Your task to perform on an android device: stop showing notifications on the lock screen Image 0: 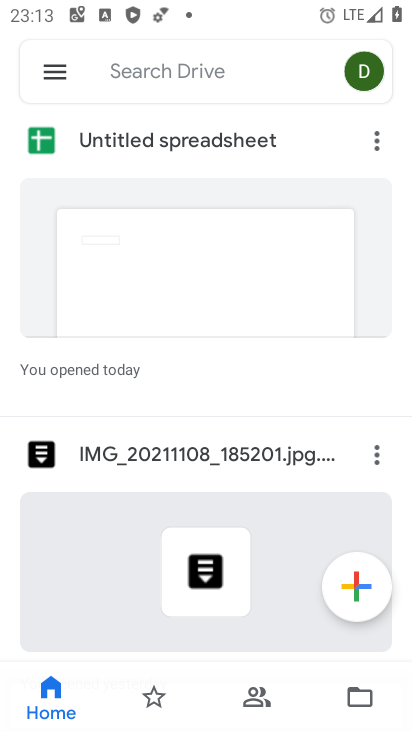
Step 0: drag from (0, 575) to (56, 727)
Your task to perform on an android device: stop showing notifications on the lock screen Image 1: 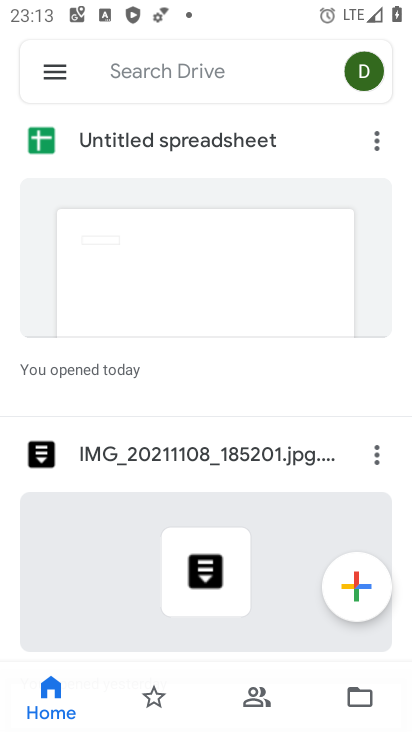
Step 1: press home button
Your task to perform on an android device: stop showing notifications on the lock screen Image 2: 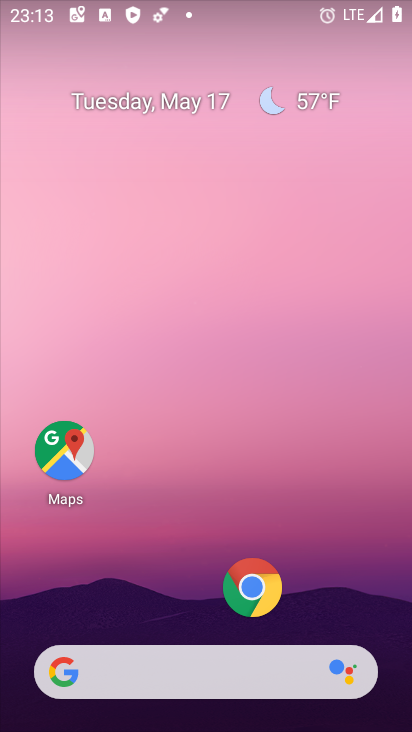
Step 2: drag from (13, 568) to (219, 158)
Your task to perform on an android device: stop showing notifications on the lock screen Image 3: 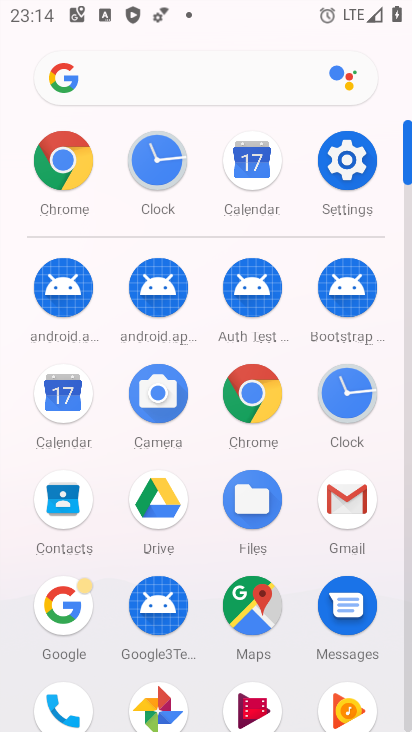
Step 3: click (364, 169)
Your task to perform on an android device: stop showing notifications on the lock screen Image 4: 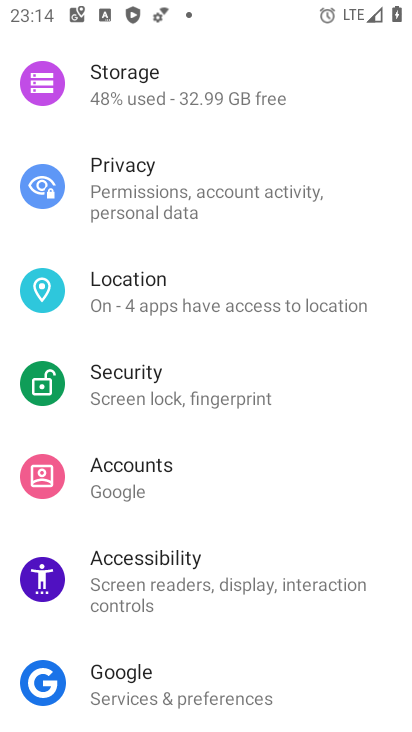
Step 4: drag from (171, 226) to (175, 324)
Your task to perform on an android device: stop showing notifications on the lock screen Image 5: 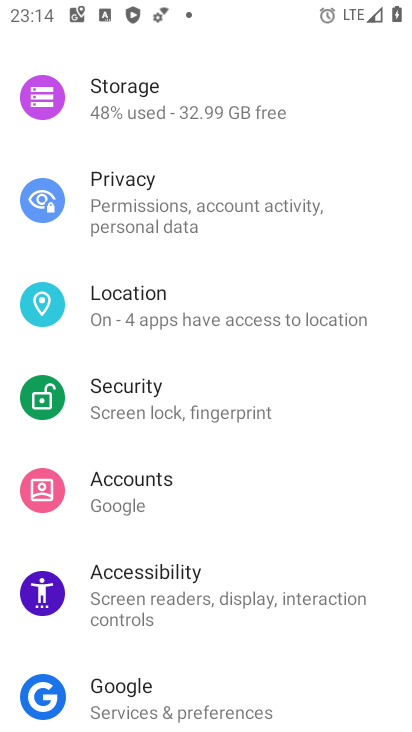
Step 5: drag from (273, 133) to (307, 550)
Your task to perform on an android device: stop showing notifications on the lock screen Image 6: 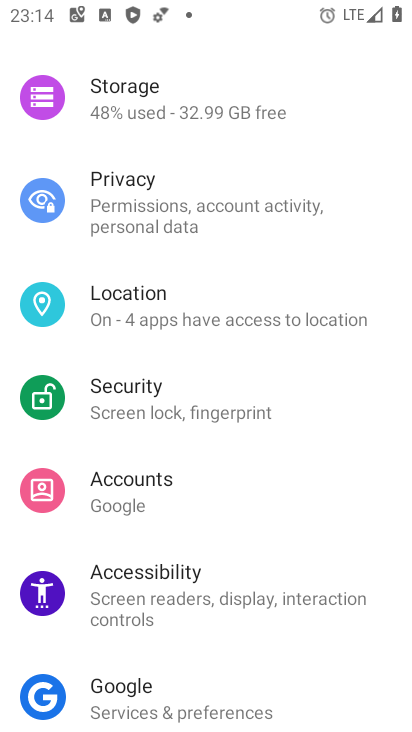
Step 6: drag from (141, 86) to (199, 597)
Your task to perform on an android device: stop showing notifications on the lock screen Image 7: 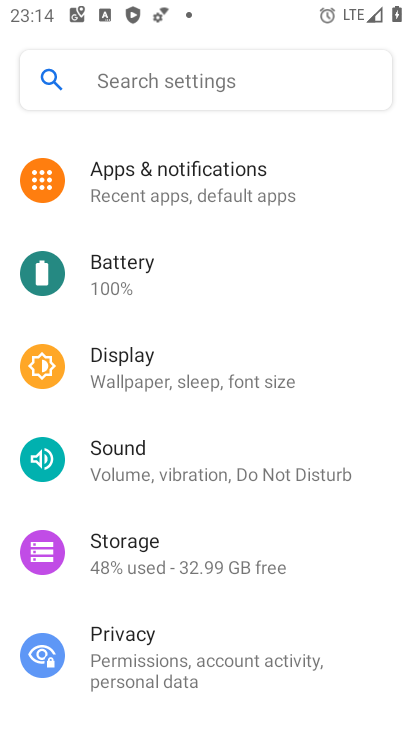
Step 7: click (193, 178)
Your task to perform on an android device: stop showing notifications on the lock screen Image 8: 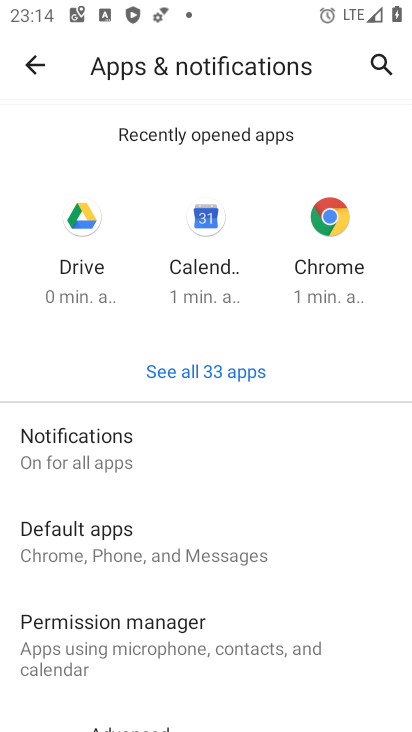
Step 8: click (96, 465)
Your task to perform on an android device: stop showing notifications on the lock screen Image 9: 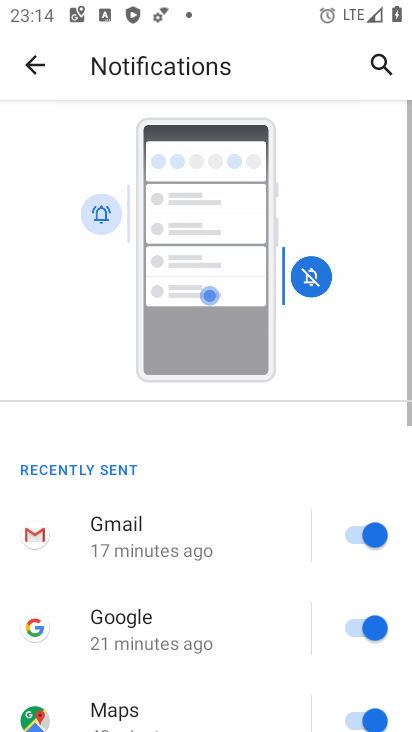
Step 9: drag from (128, 696) to (165, 186)
Your task to perform on an android device: stop showing notifications on the lock screen Image 10: 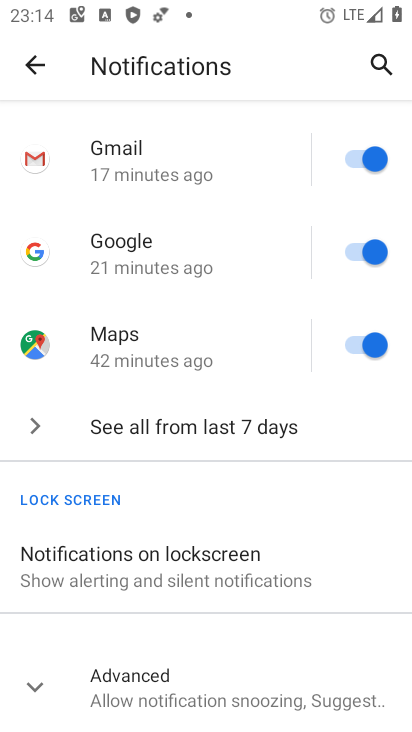
Step 10: click (182, 573)
Your task to perform on an android device: stop showing notifications on the lock screen Image 11: 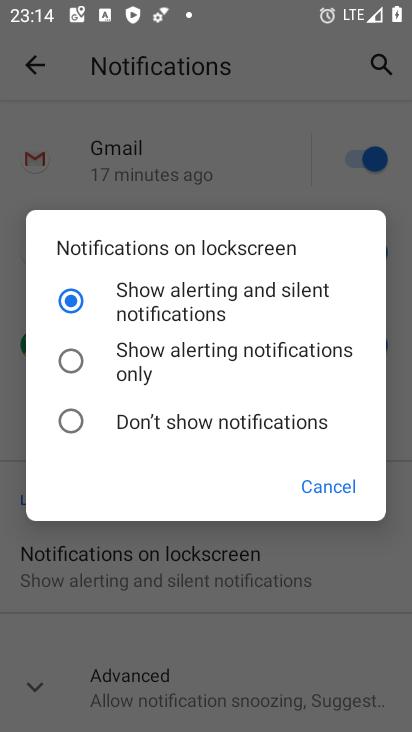
Step 11: click (73, 422)
Your task to perform on an android device: stop showing notifications on the lock screen Image 12: 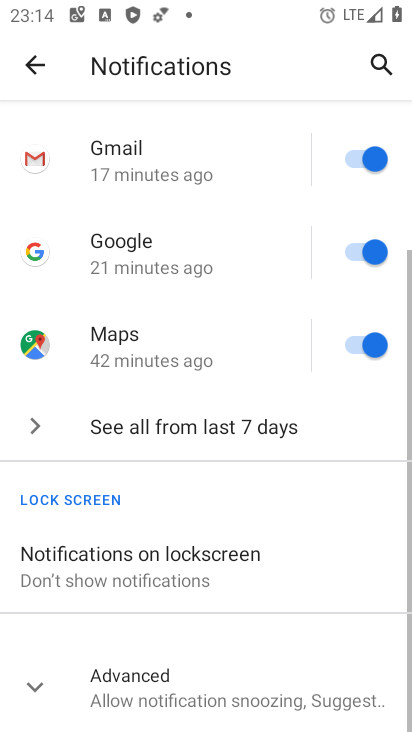
Step 12: task complete